Your task to perform on an android device: change the clock display to analog Image 0: 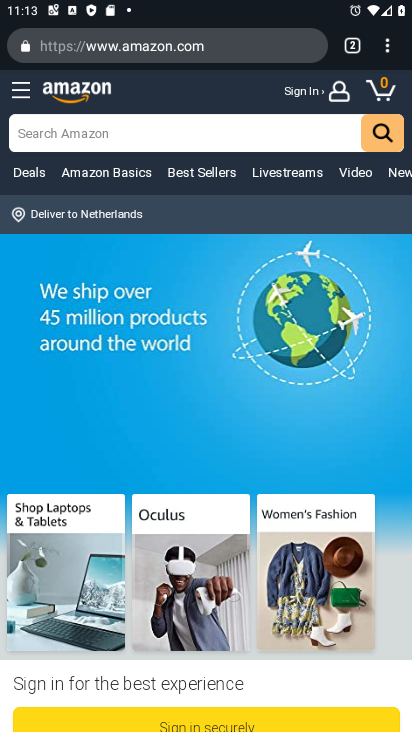
Step 0: press home button
Your task to perform on an android device: change the clock display to analog Image 1: 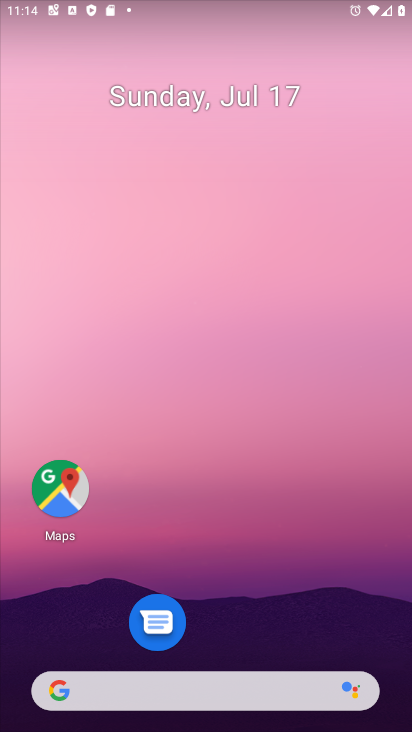
Step 1: drag from (217, 662) to (238, 176)
Your task to perform on an android device: change the clock display to analog Image 2: 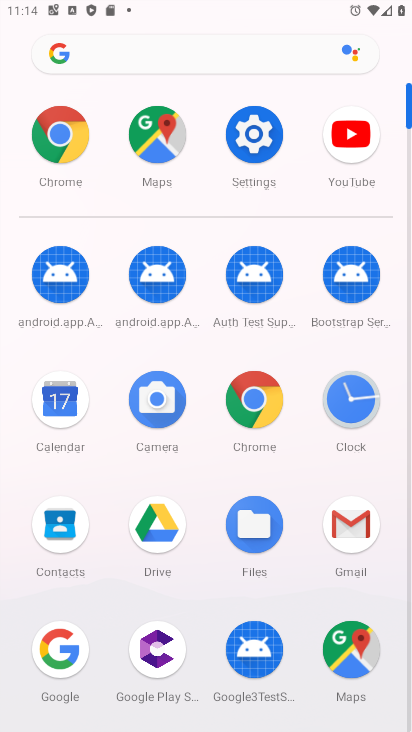
Step 2: click (348, 390)
Your task to perform on an android device: change the clock display to analog Image 3: 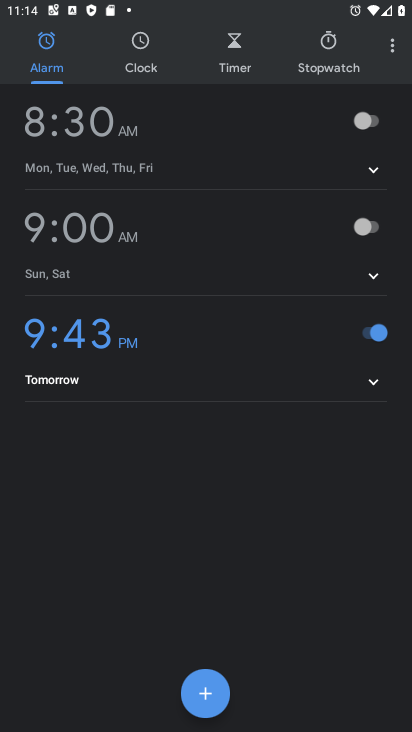
Step 3: click (396, 39)
Your task to perform on an android device: change the clock display to analog Image 4: 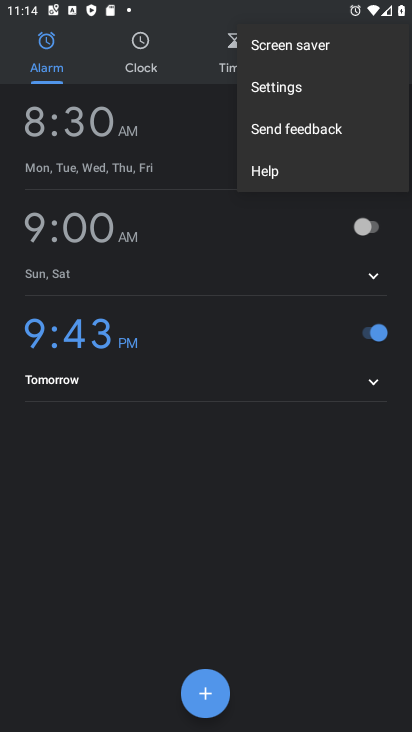
Step 4: click (293, 95)
Your task to perform on an android device: change the clock display to analog Image 5: 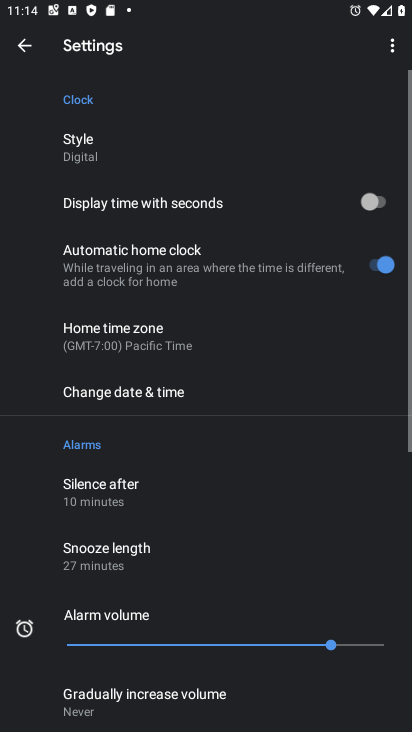
Step 5: click (114, 142)
Your task to perform on an android device: change the clock display to analog Image 6: 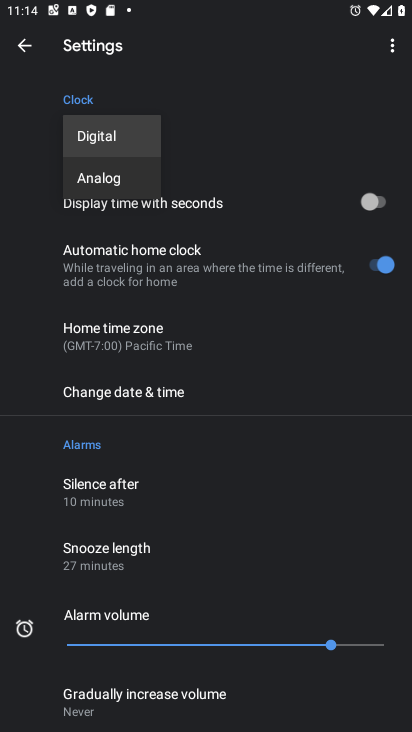
Step 6: click (123, 193)
Your task to perform on an android device: change the clock display to analog Image 7: 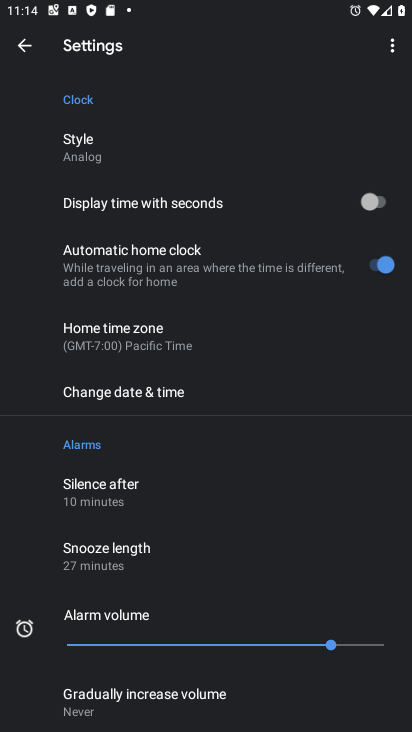
Step 7: task complete